Your task to perform on an android device: What's on my calendar today? Image 0: 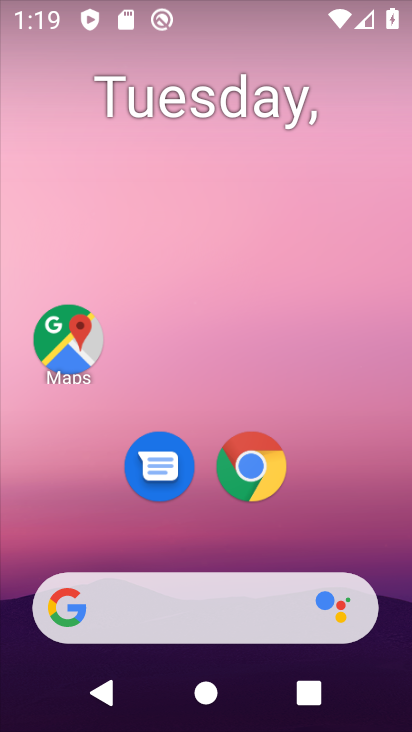
Step 0: drag from (324, 472) to (271, 81)
Your task to perform on an android device: What's on my calendar today? Image 1: 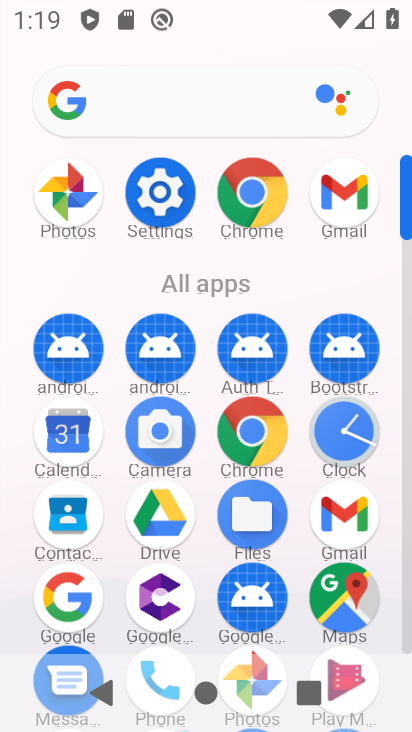
Step 1: task complete